Your task to perform on an android device: What is the recent news? Image 0: 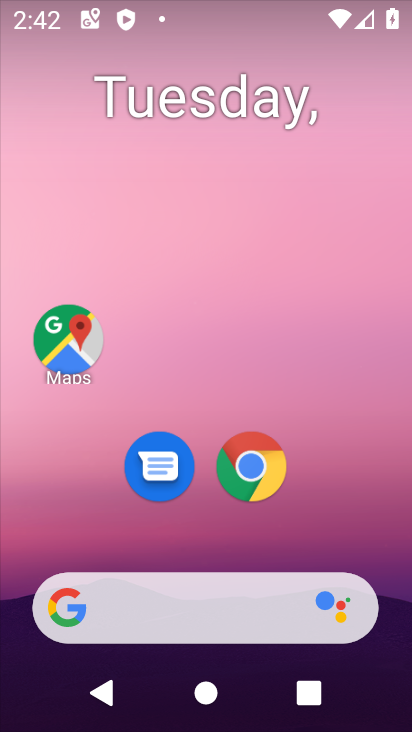
Step 0: drag from (346, 539) to (278, 104)
Your task to perform on an android device: What is the recent news? Image 1: 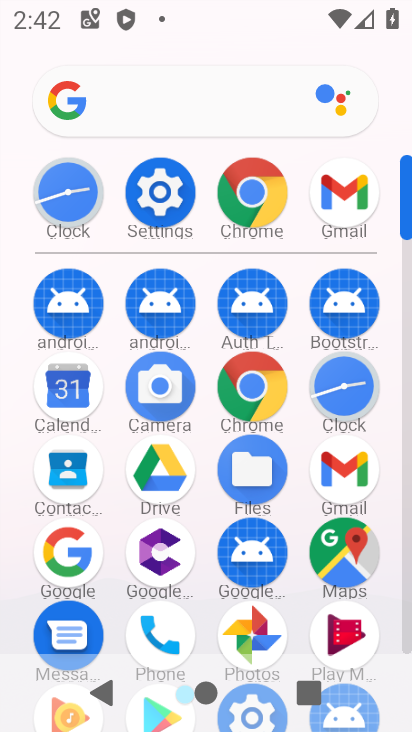
Step 1: click (214, 127)
Your task to perform on an android device: What is the recent news? Image 2: 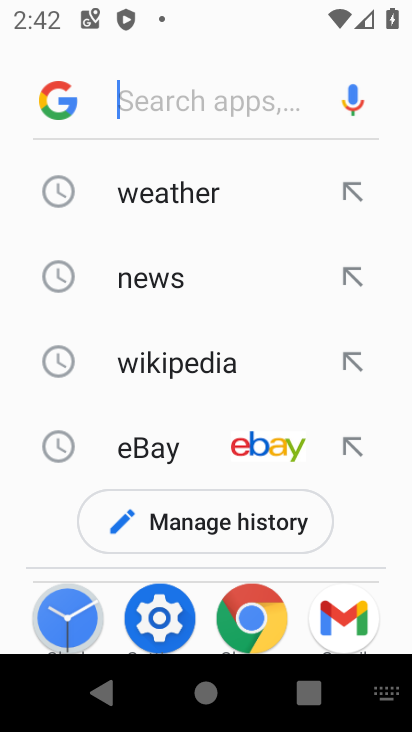
Step 2: click (262, 281)
Your task to perform on an android device: What is the recent news? Image 3: 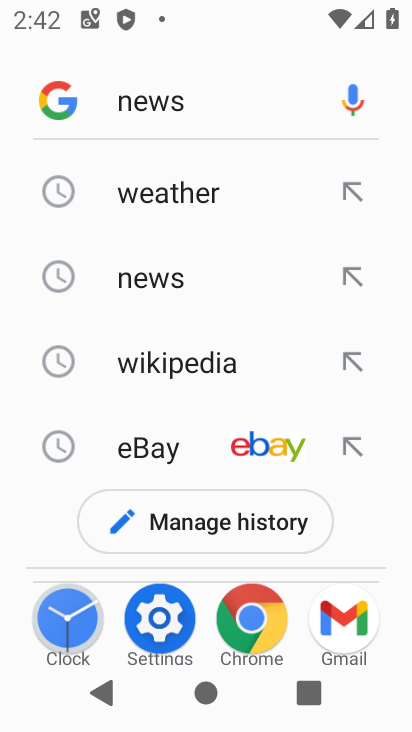
Step 3: task complete